Your task to perform on an android device: Go to privacy settings Image 0: 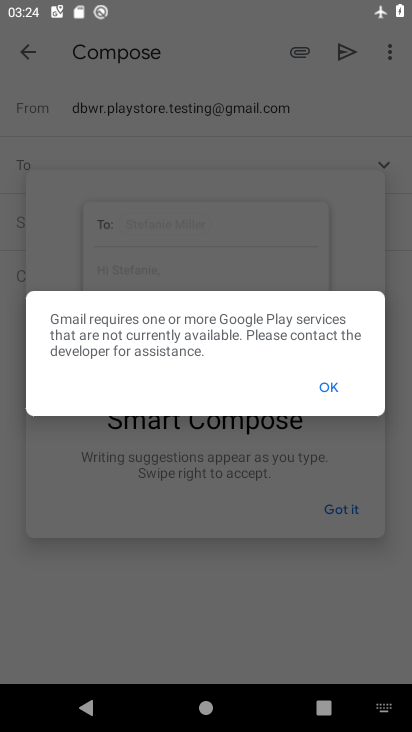
Step 0: press home button
Your task to perform on an android device: Go to privacy settings Image 1: 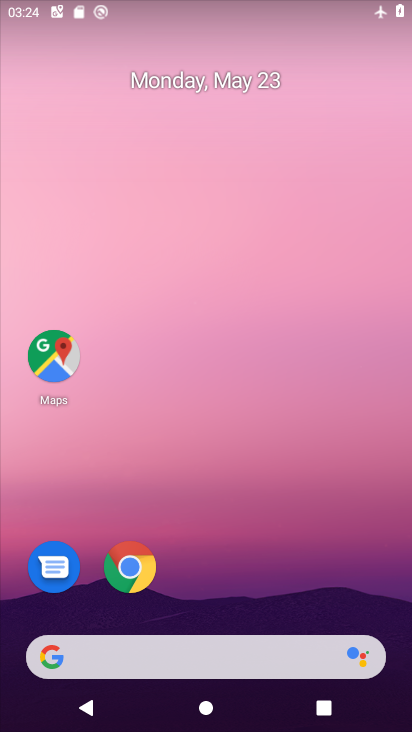
Step 1: drag from (45, 519) to (170, 198)
Your task to perform on an android device: Go to privacy settings Image 2: 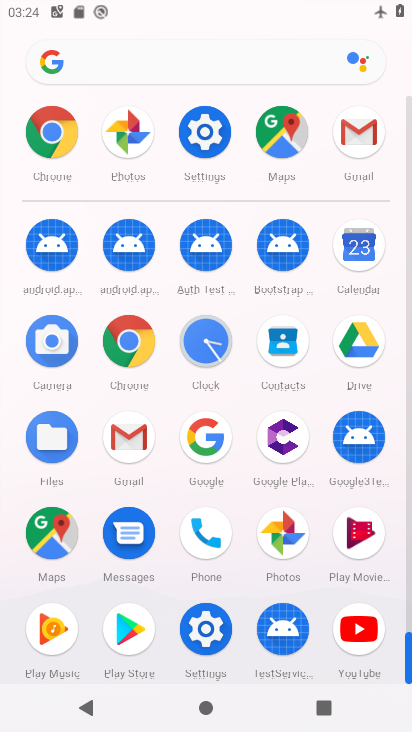
Step 2: click (206, 141)
Your task to perform on an android device: Go to privacy settings Image 3: 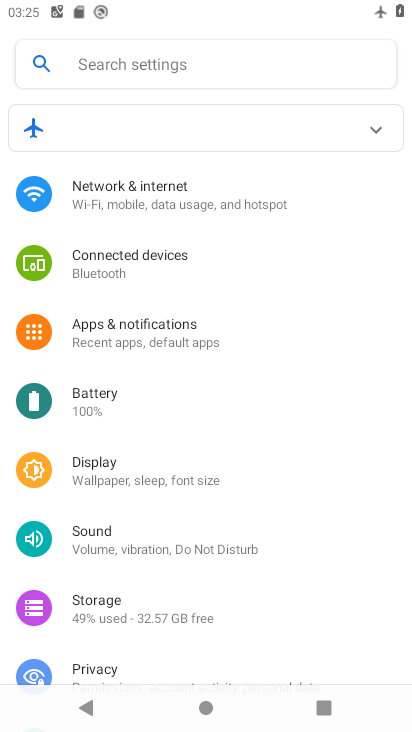
Step 3: drag from (5, 573) to (216, 223)
Your task to perform on an android device: Go to privacy settings Image 4: 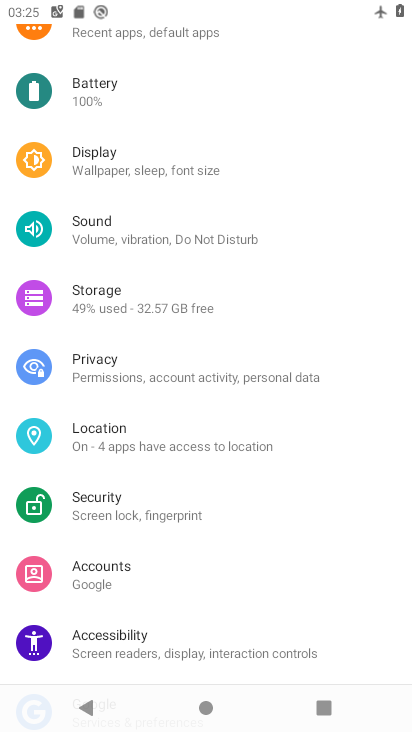
Step 4: click (104, 373)
Your task to perform on an android device: Go to privacy settings Image 5: 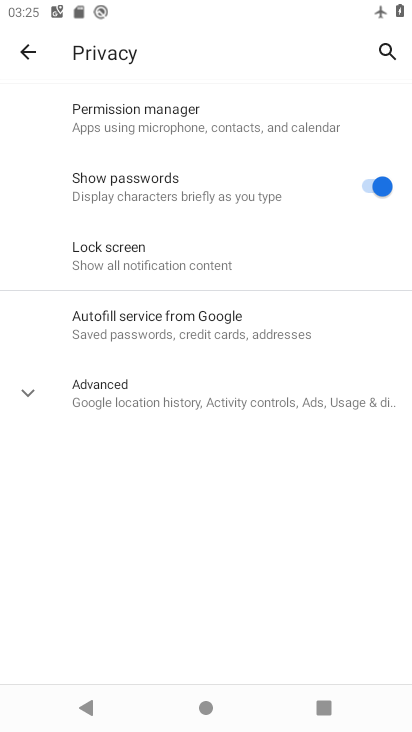
Step 5: task complete